Your task to perform on an android device: toggle notifications settings in the gmail app Image 0: 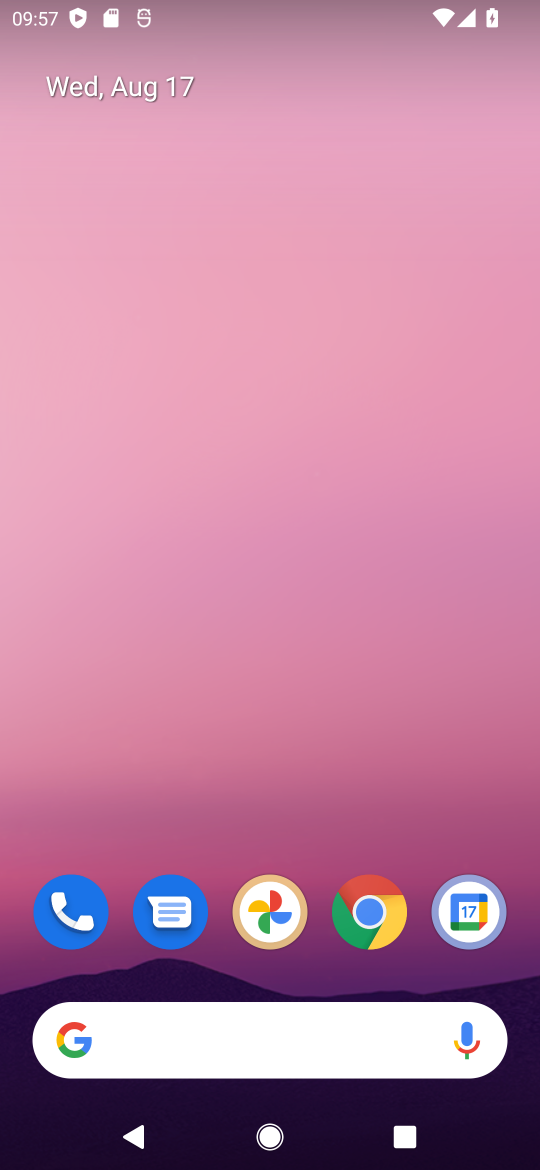
Step 0: drag from (272, 1021) to (250, 360)
Your task to perform on an android device: toggle notifications settings in the gmail app Image 1: 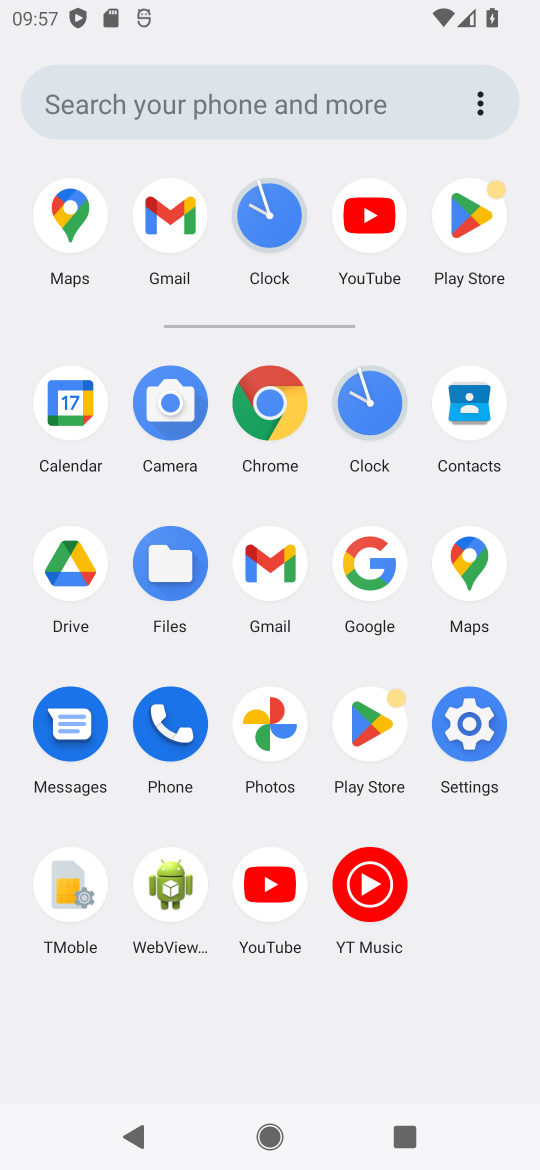
Step 1: click (279, 558)
Your task to perform on an android device: toggle notifications settings in the gmail app Image 2: 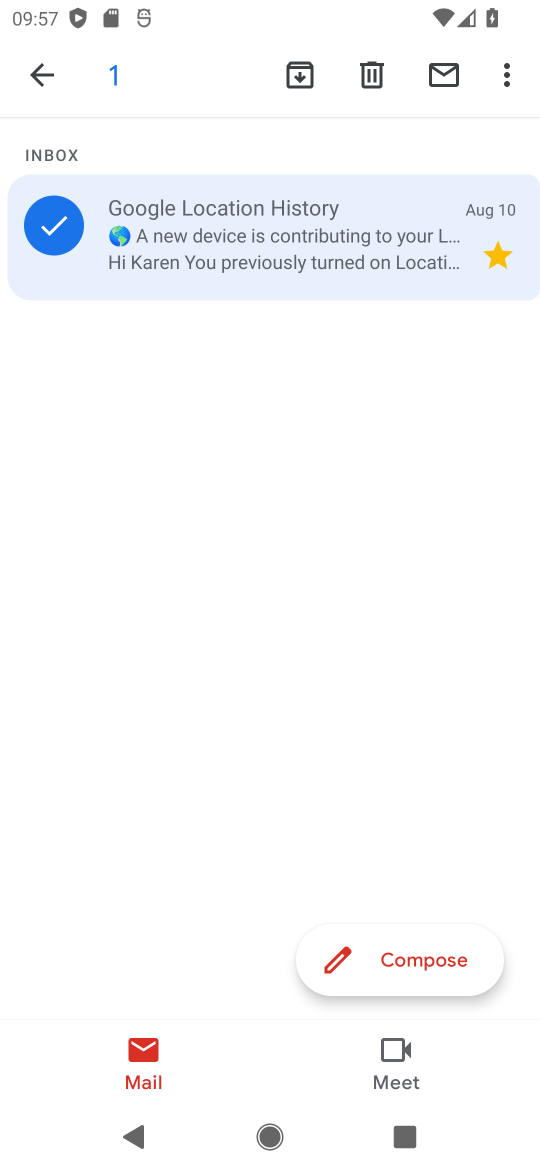
Step 2: click (51, 84)
Your task to perform on an android device: toggle notifications settings in the gmail app Image 3: 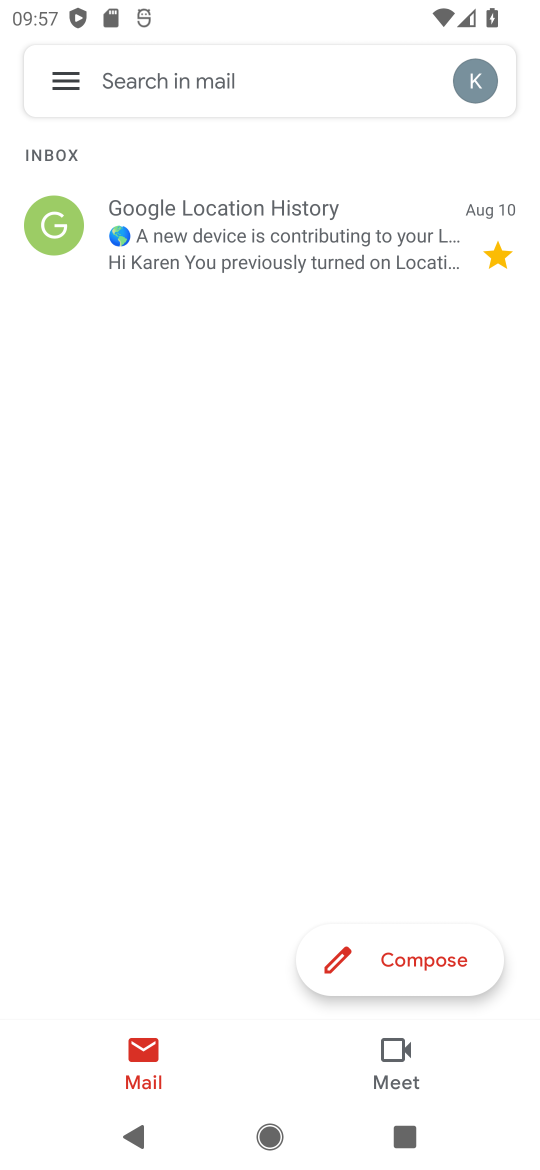
Step 3: click (63, 79)
Your task to perform on an android device: toggle notifications settings in the gmail app Image 4: 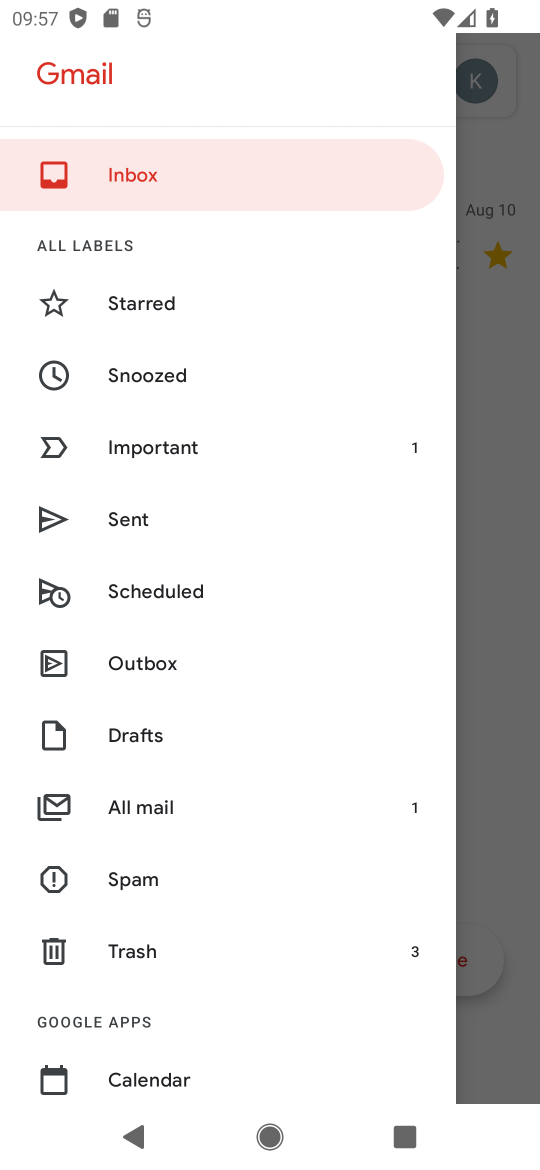
Step 4: drag from (158, 1032) to (86, 328)
Your task to perform on an android device: toggle notifications settings in the gmail app Image 5: 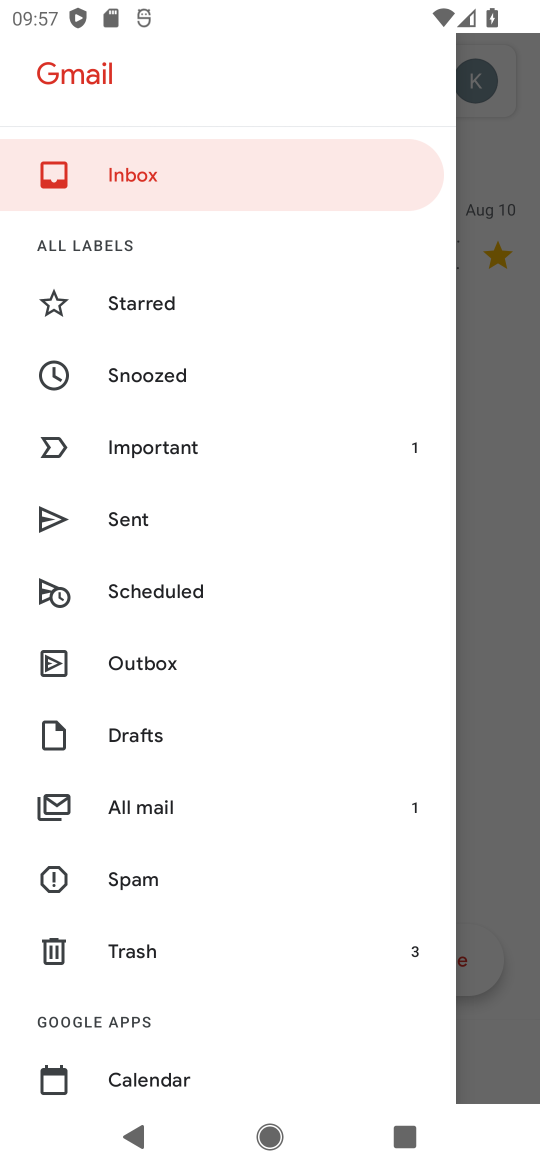
Step 5: drag from (109, 996) to (133, 314)
Your task to perform on an android device: toggle notifications settings in the gmail app Image 6: 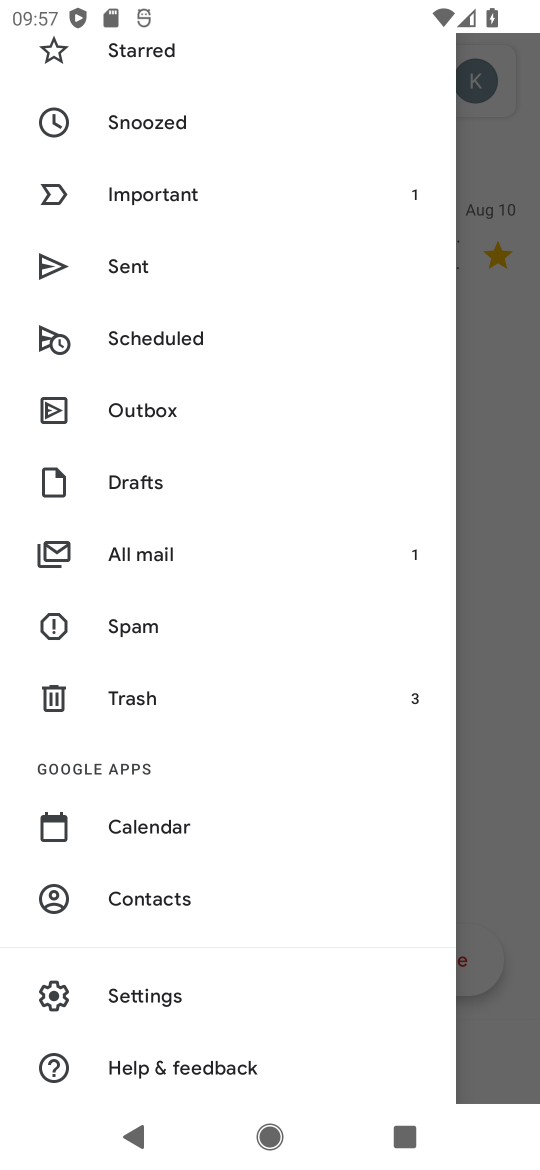
Step 6: click (161, 1005)
Your task to perform on an android device: toggle notifications settings in the gmail app Image 7: 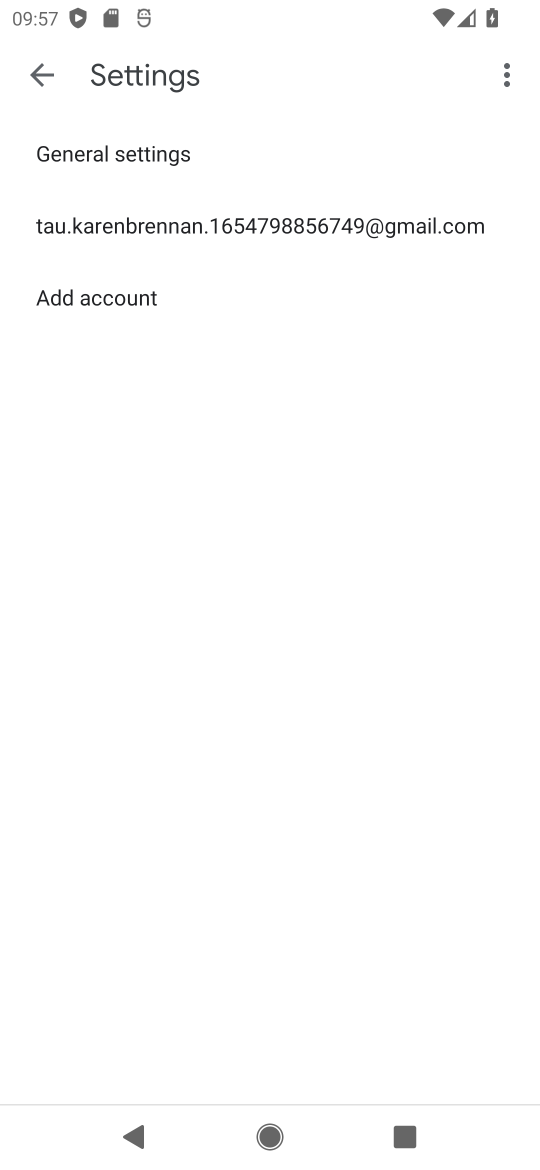
Step 7: click (201, 217)
Your task to perform on an android device: toggle notifications settings in the gmail app Image 8: 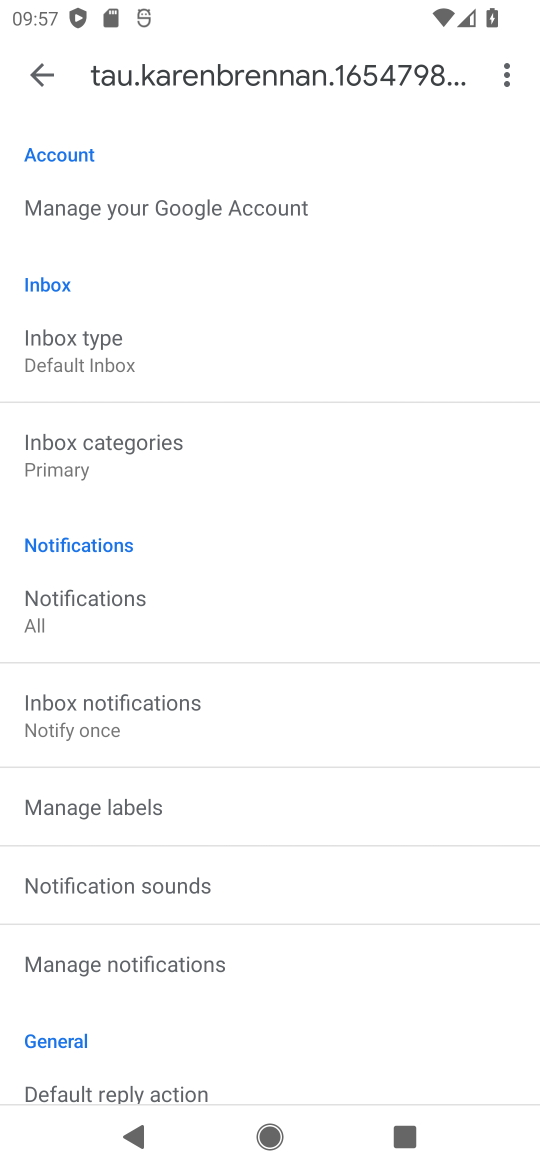
Step 8: click (75, 968)
Your task to perform on an android device: toggle notifications settings in the gmail app Image 9: 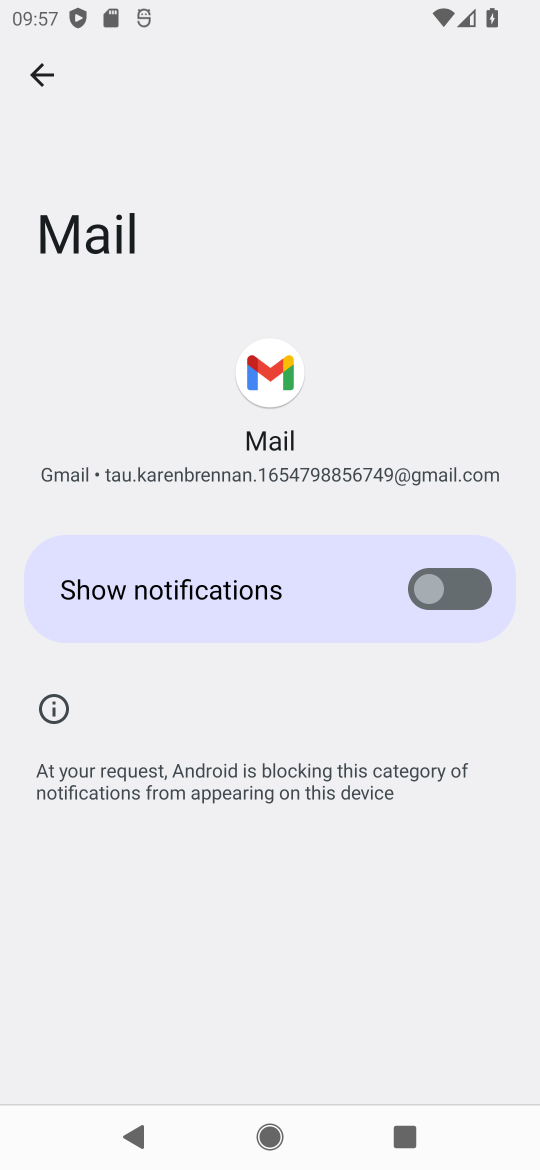
Step 9: click (431, 596)
Your task to perform on an android device: toggle notifications settings in the gmail app Image 10: 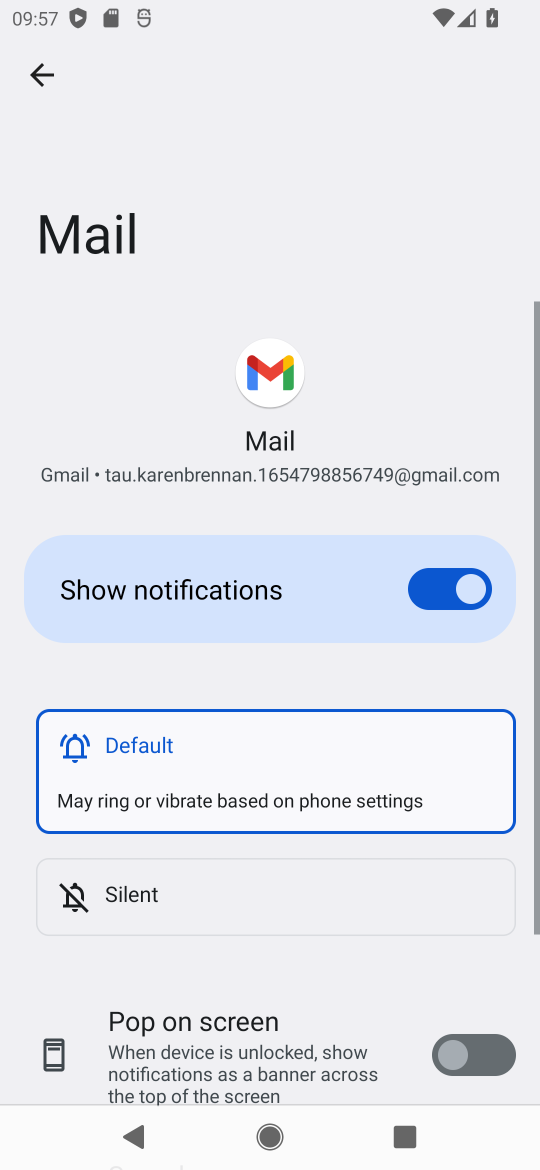
Step 10: task complete